Your task to perform on an android device: turn off notifications in google photos Image 0: 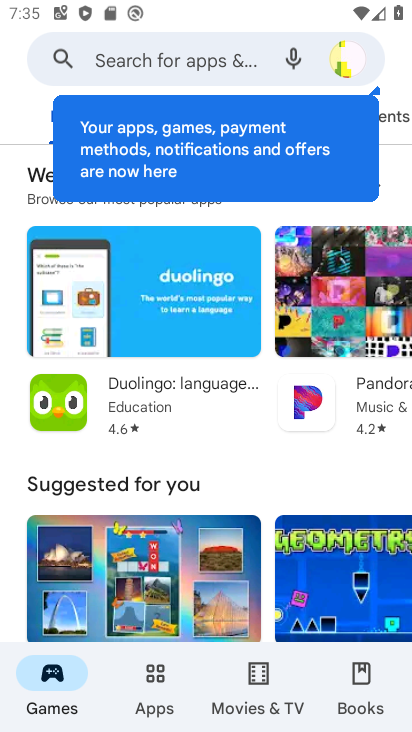
Step 0: press home button
Your task to perform on an android device: turn off notifications in google photos Image 1: 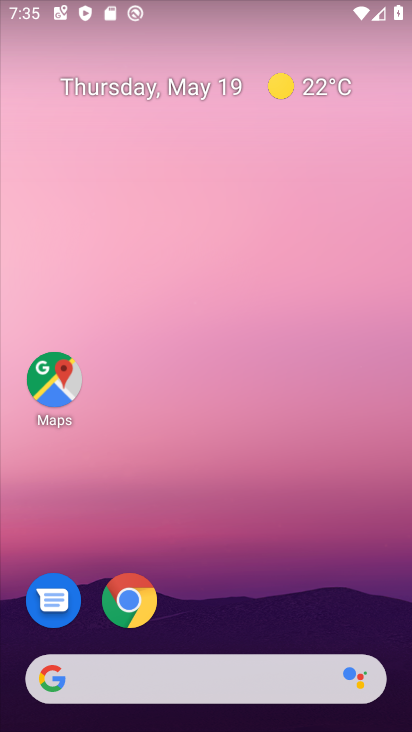
Step 1: drag from (332, 596) to (330, 219)
Your task to perform on an android device: turn off notifications in google photos Image 2: 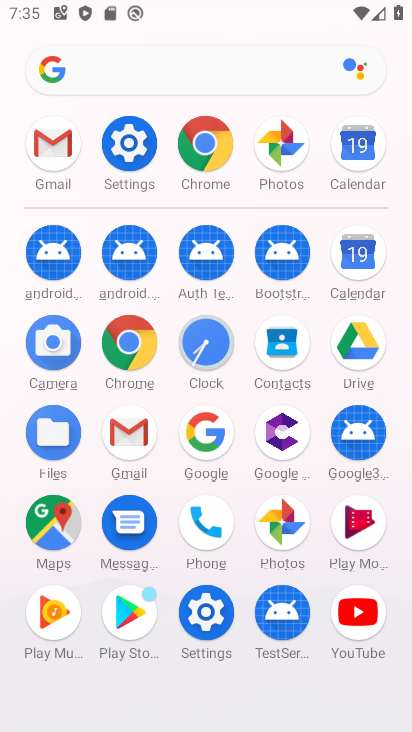
Step 2: click (279, 530)
Your task to perform on an android device: turn off notifications in google photos Image 3: 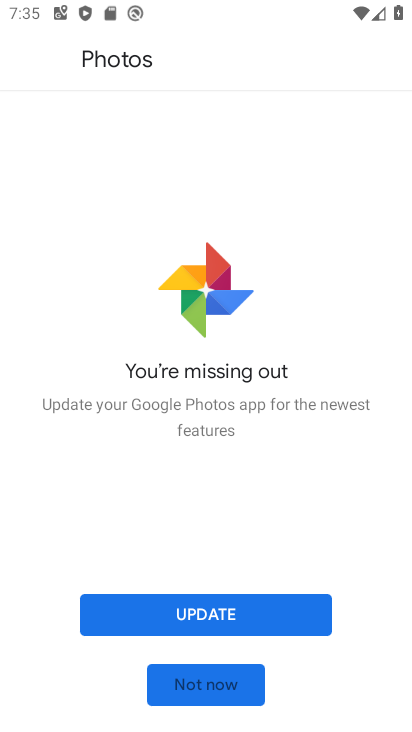
Step 3: click (234, 597)
Your task to perform on an android device: turn off notifications in google photos Image 4: 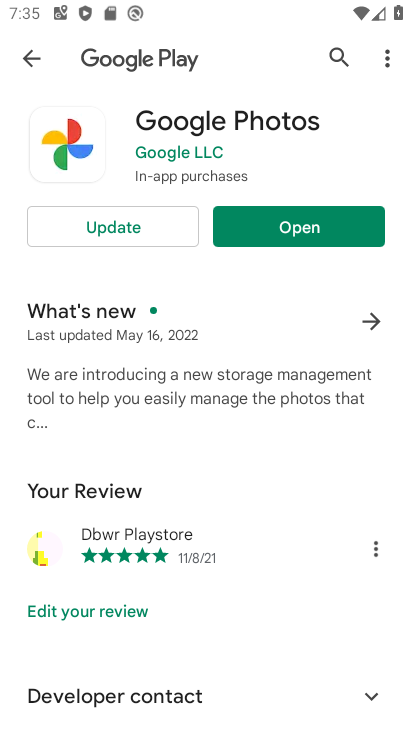
Step 4: click (150, 238)
Your task to perform on an android device: turn off notifications in google photos Image 5: 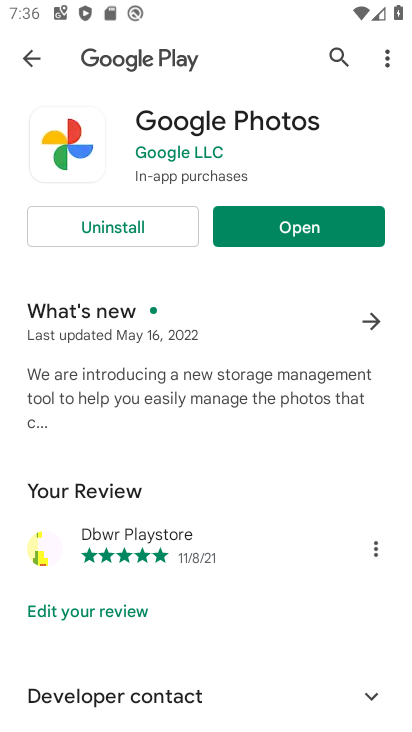
Step 5: click (261, 233)
Your task to perform on an android device: turn off notifications in google photos Image 6: 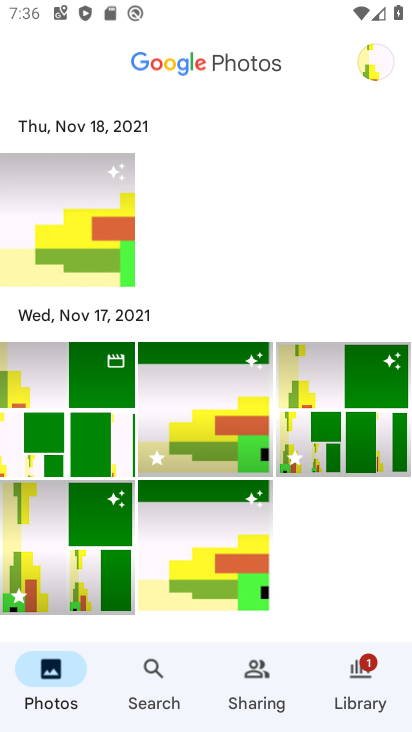
Step 6: click (387, 75)
Your task to perform on an android device: turn off notifications in google photos Image 7: 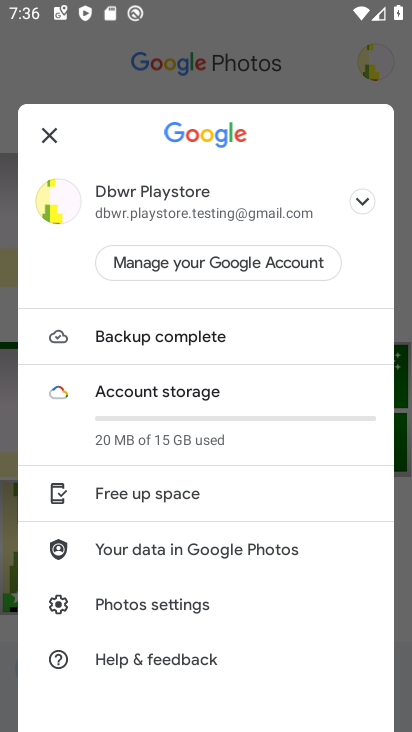
Step 7: click (201, 610)
Your task to perform on an android device: turn off notifications in google photos Image 8: 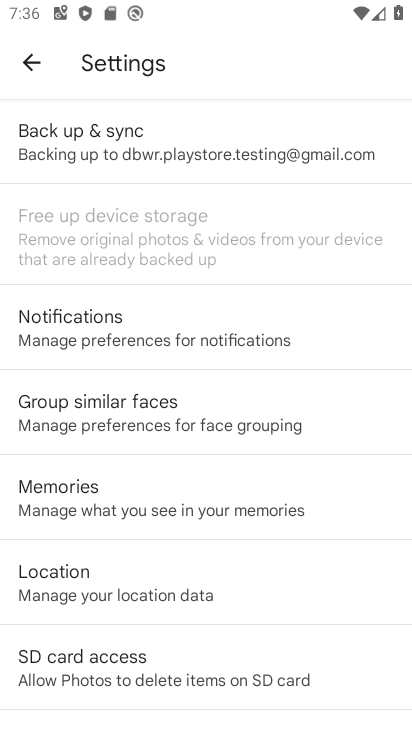
Step 8: click (200, 324)
Your task to perform on an android device: turn off notifications in google photos Image 9: 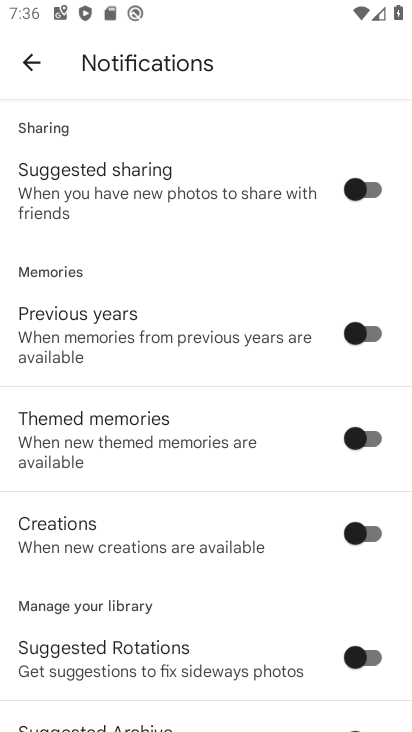
Step 9: drag from (244, 691) to (241, 184)
Your task to perform on an android device: turn off notifications in google photos Image 10: 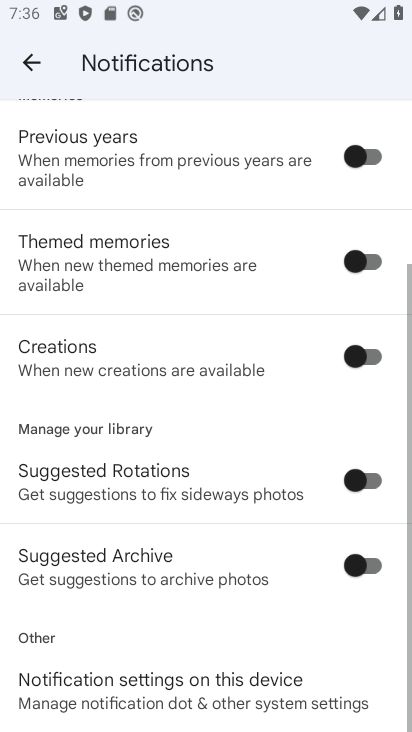
Step 10: click (161, 698)
Your task to perform on an android device: turn off notifications in google photos Image 11: 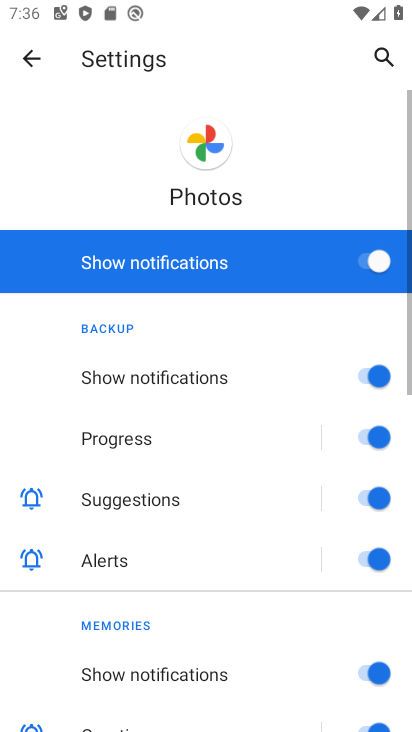
Step 11: click (386, 272)
Your task to perform on an android device: turn off notifications in google photos Image 12: 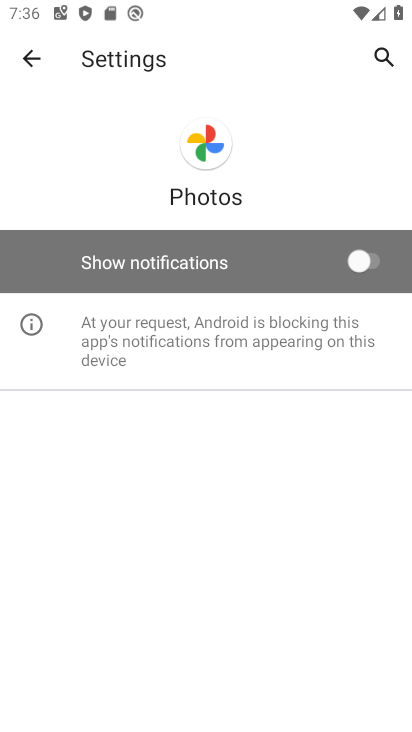
Step 12: task complete